Your task to perform on an android device: Search for flights from Buenos aires to Helsinki Image 0: 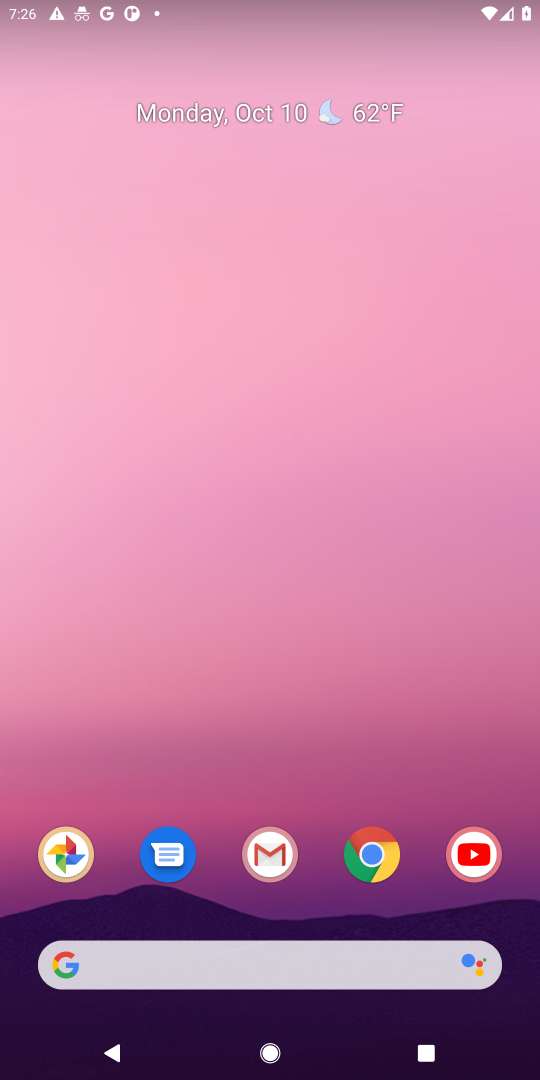
Step 0: click (378, 858)
Your task to perform on an android device: Search for flights from Buenos aires to Helsinki Image 1: 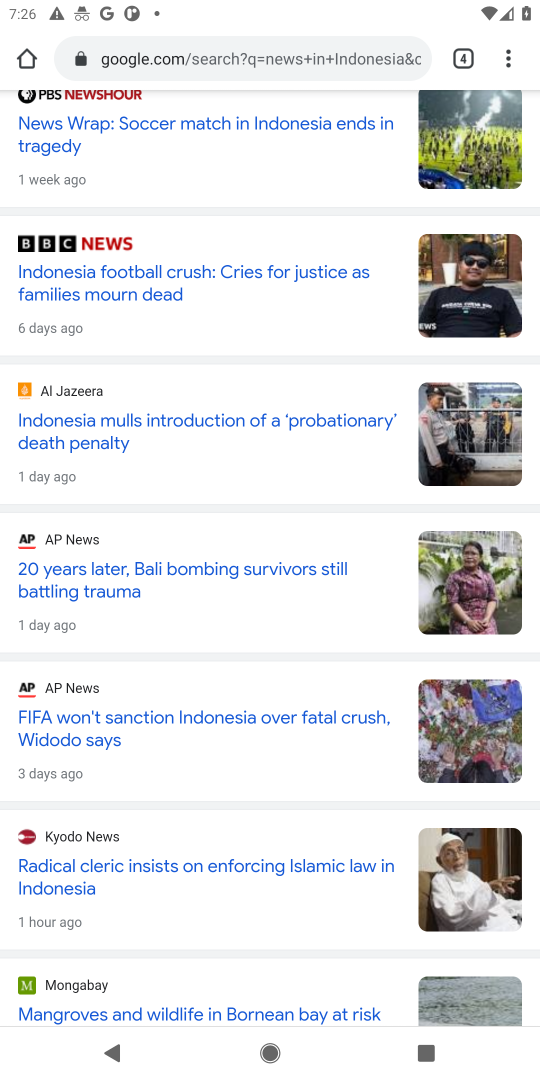
Step 1: click (257, 45)
Your task to perform on an android device: Search for flights from Buenos aires to Helsinki Image 2: 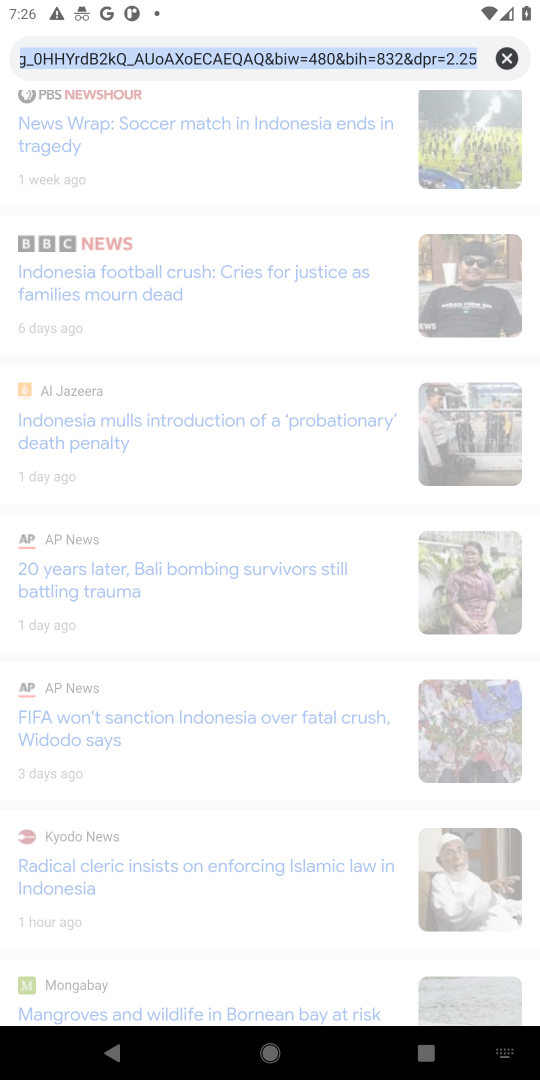
Step 2: click (503, 51)
Your task to perform on an android device: Search for flights from Buenos aires to Helsinki Image 3: 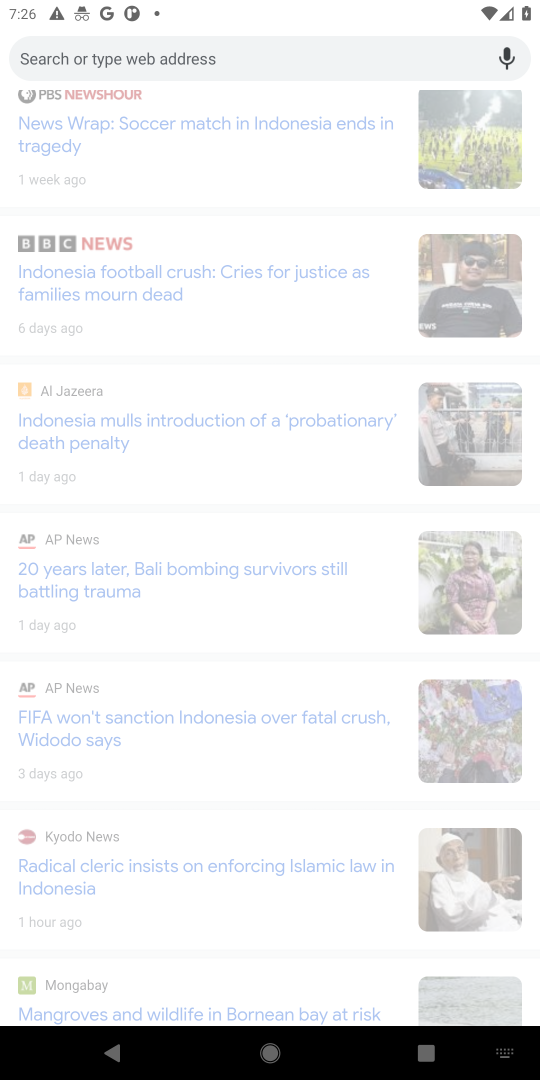
Step 3: type "flights from Buenos aires to Helsinki"
Your task to perform on an android device: Search for flights from Buenos aires to Helsinki Image 4: 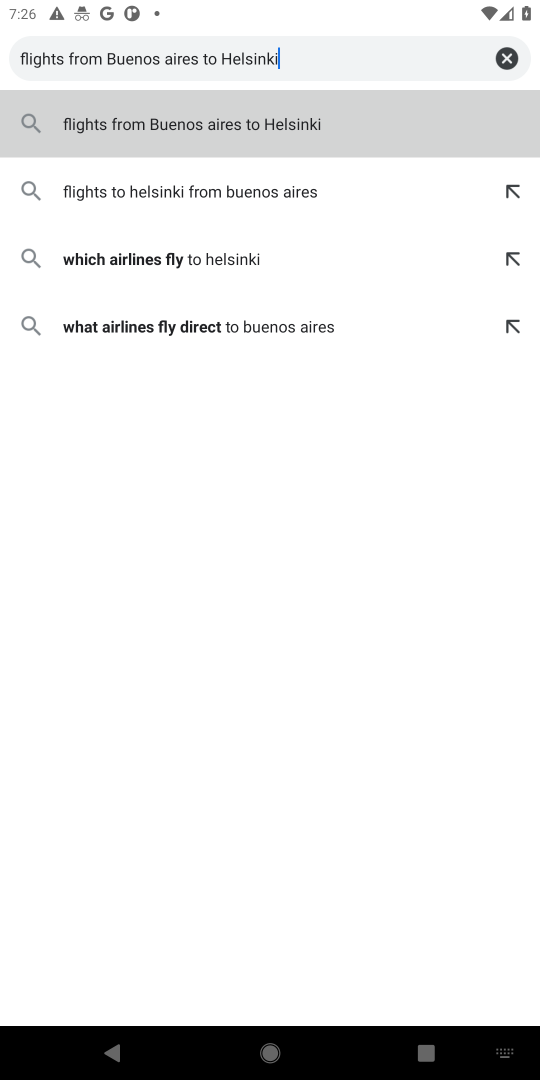
Step 4: click (281, 125)
Your task to perform on an android device: Search for flights from Buenos aires to Helsinki Image 5: 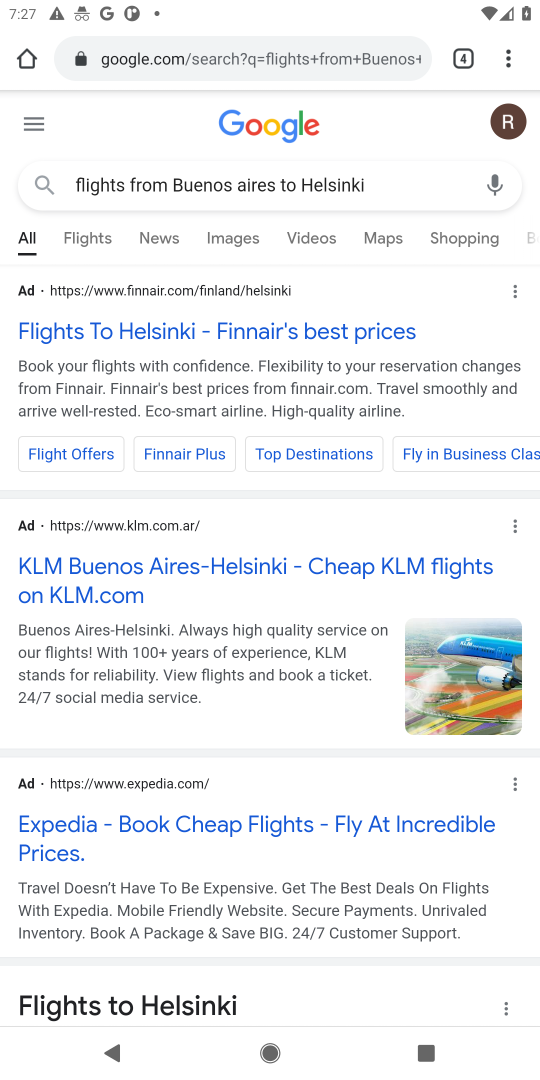
Step 5: drag from (226, 861) to (537, 103)
Your task to perform on an android device: Search for flights from Buenos aires to Helsinki Image 6: 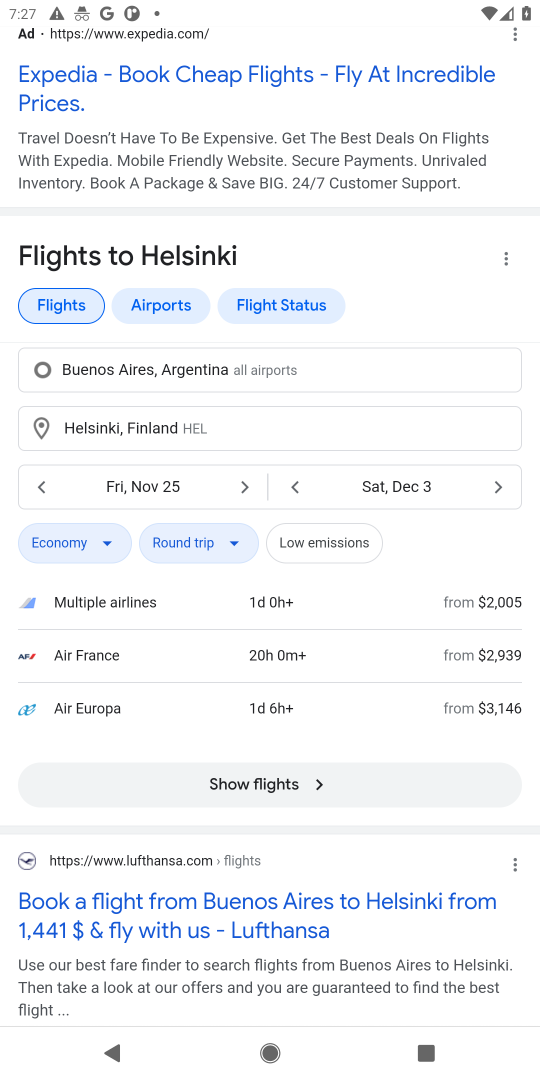
Step 6: click (274, 784)
Your task to perform on an android device: Search for flights from Buenos aires to Helsinki Image 7: 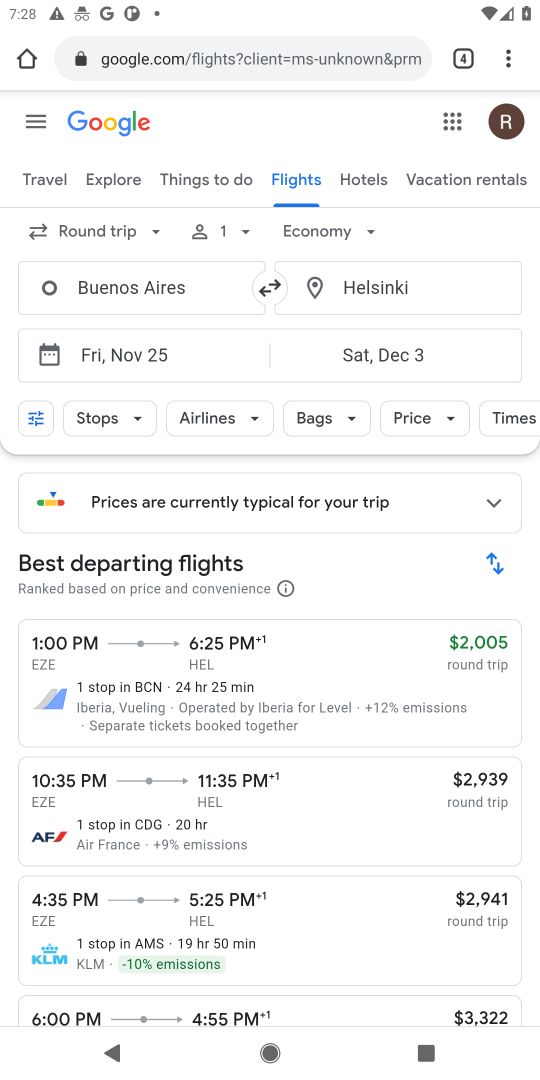
Step 7: task complete